Your task to perform on an android device: Go to Maps Image 0: 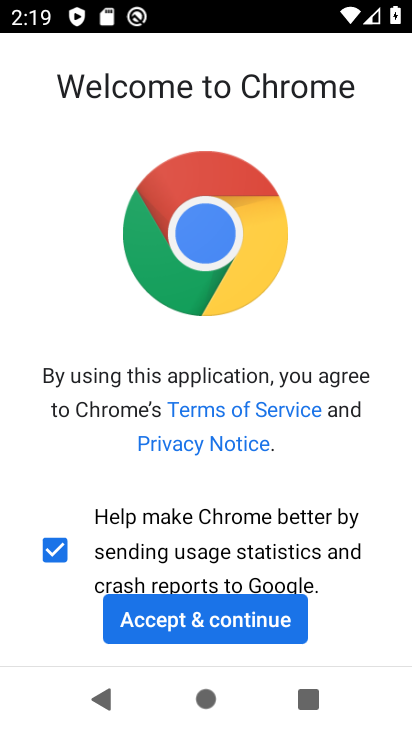
Step 0: press home button
Your task to perform on an android device: Go to Maps Image 1: 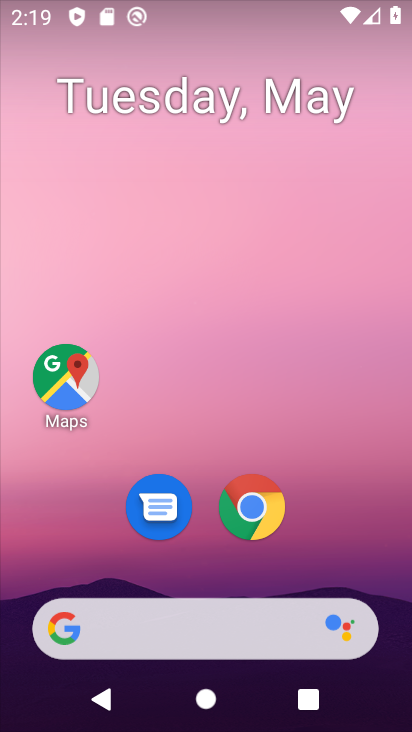
Step 1: click (81, 369)
Your task to perform on an android device: Go to Maps Image 2: 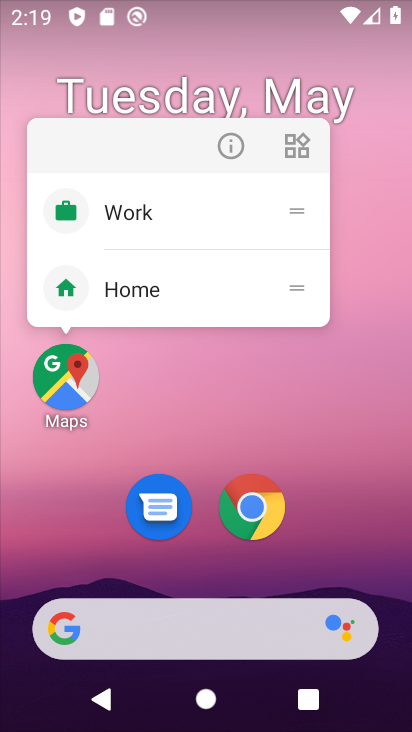
Step 2: click (61, 387)
Your task to perform on an android device: Go to Maps Image 3: 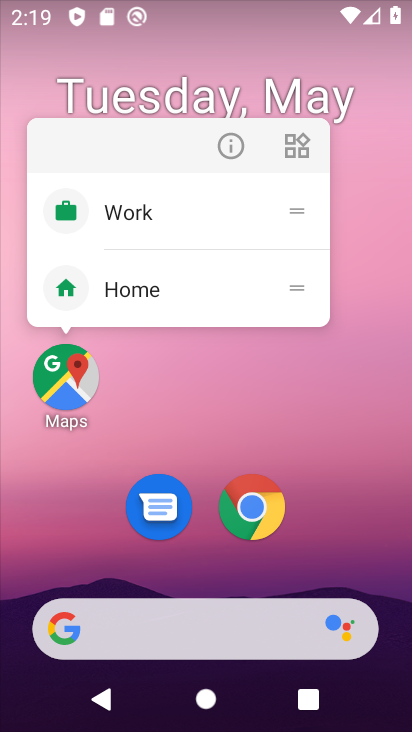
Step 3: click (62, 400)
Your task to perform on an android device: Go to Maps Image 4: 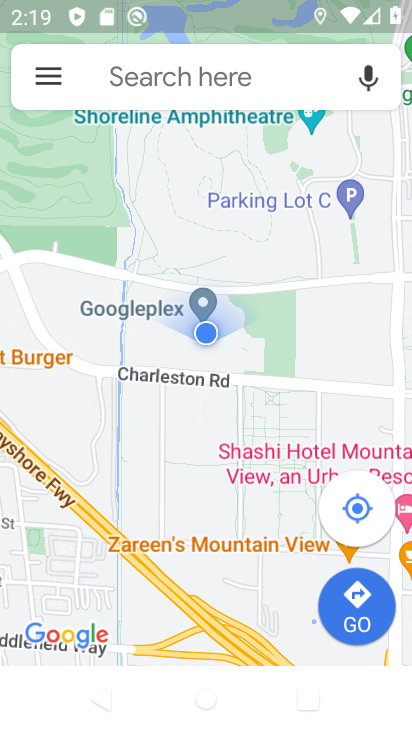
Step 4: task complete